Your task to perform on an android device: Open Google Maps and go to "Timeline" Image 0: 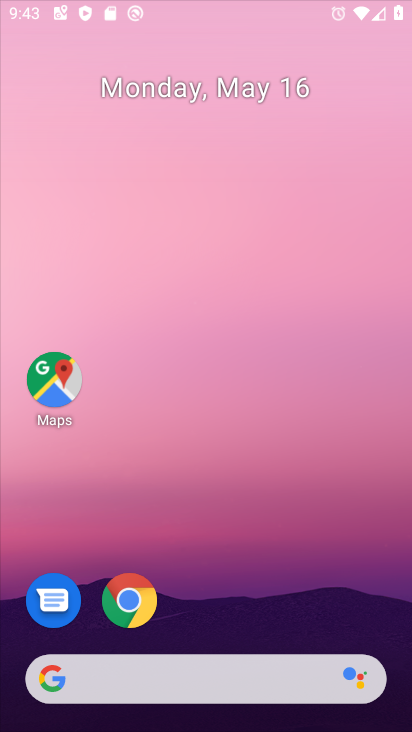
Step 0: drag from (194, 594) to (267, 9)
Your task to perform on an android device: Open Google Maps and go to "Timeline" Image 1: 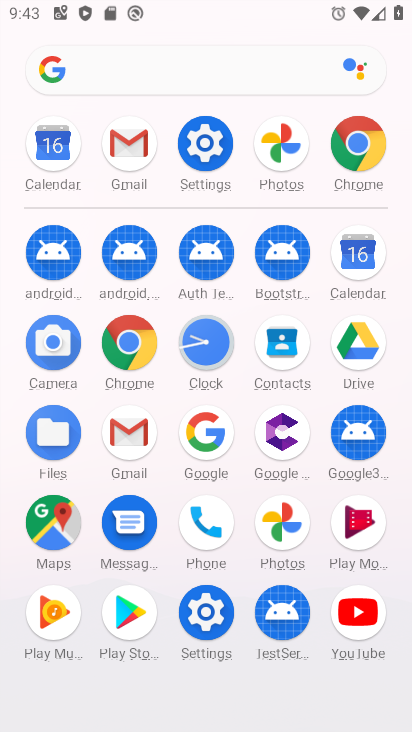
Step 1: click (55, 520)
Your task to perform on an android device: Open Google Maps and go to "Timeline" Image 2: 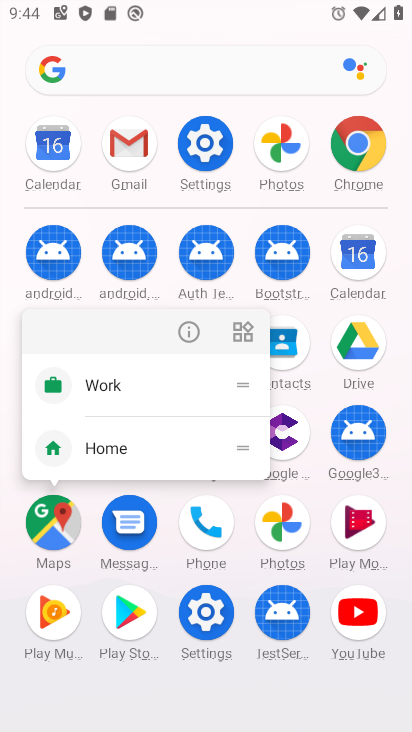
Step 2: click (182, 331)
Your task to perform on an android device: Open Google Maps and go to "Timeline" Image 3: 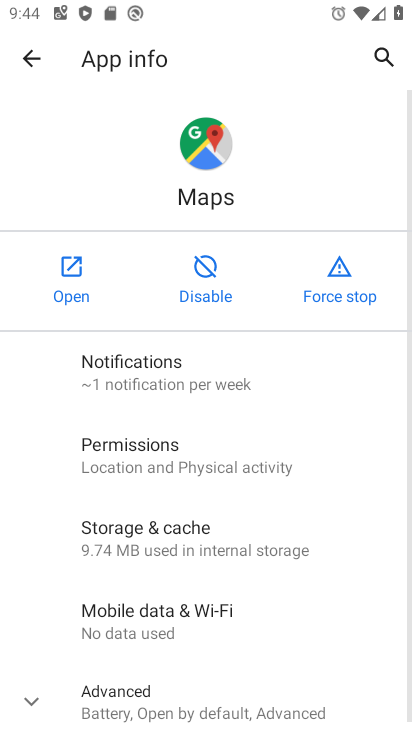
Step 3: click (72, 267)
Your task to perform on an android device: Open Google Maps and go to "Timeline" Image 4: 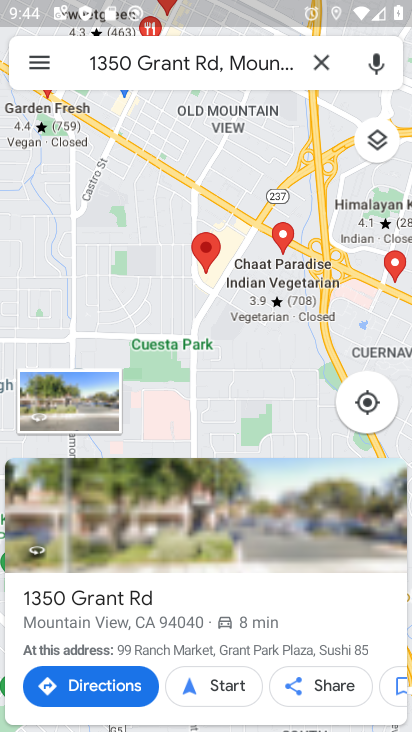
Step 4: drag from (237, 528) to (251, 16)
Your task to perform on an android device: Open Google Maps and go to "Timeline" Image 5: 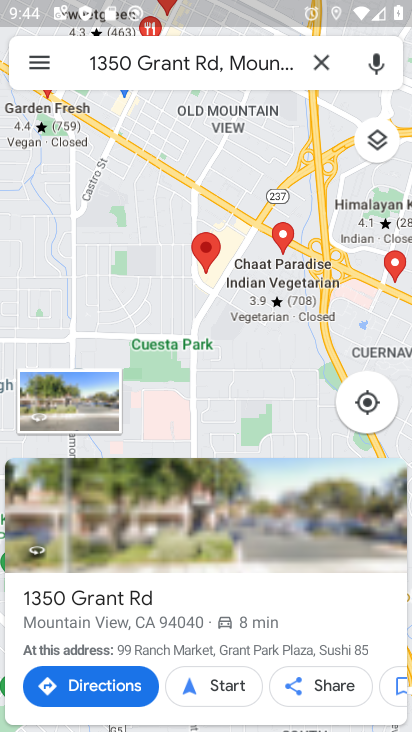
Step 5: drag from (229, 603) to (257, 138)
Your task to perform on an android device: Open Google Maps and go to "Timeline" Image 6: 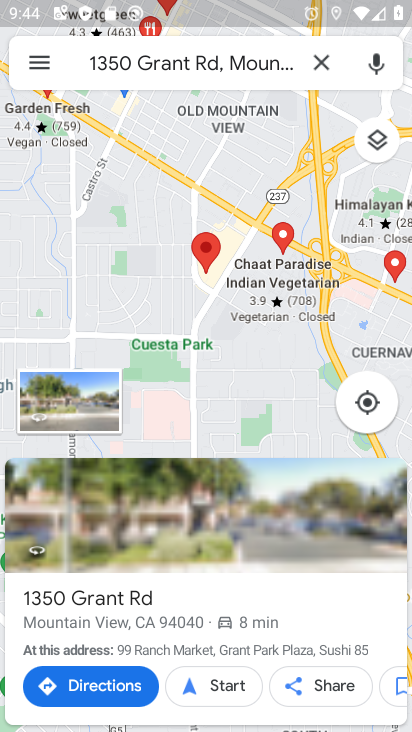
Step 6: click (35, 70)
Your task to perform on an android device: Open Google Maps and go to "Timeline" Image 7: 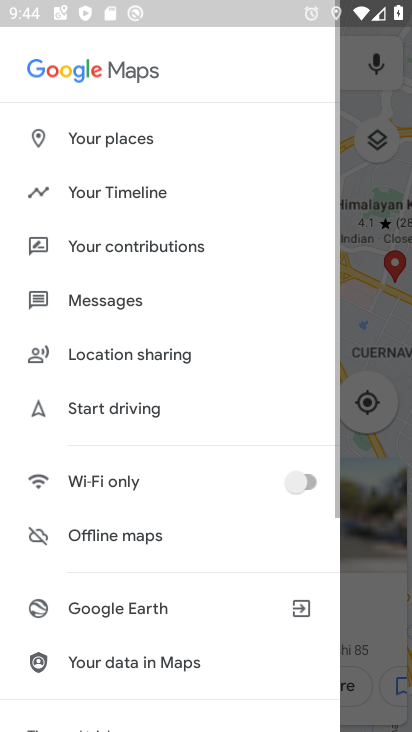
Step 7: click (116, 190)
Your task to perform on an android device: Open Google Maps and go to "Timeline" Image 8: 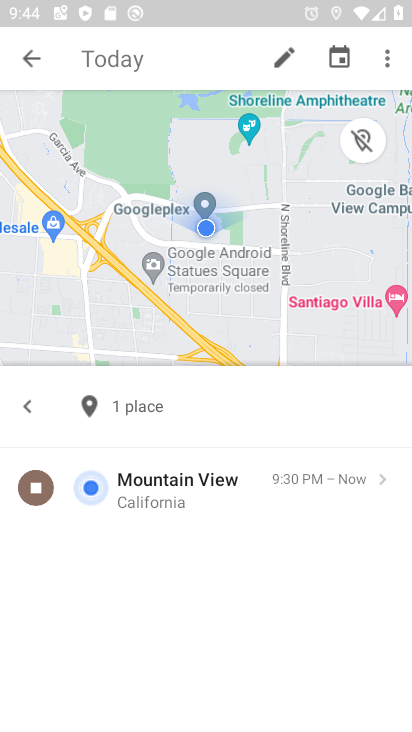
Step 8: task complete